Your task to perform on an android device: Check the news Image 0: 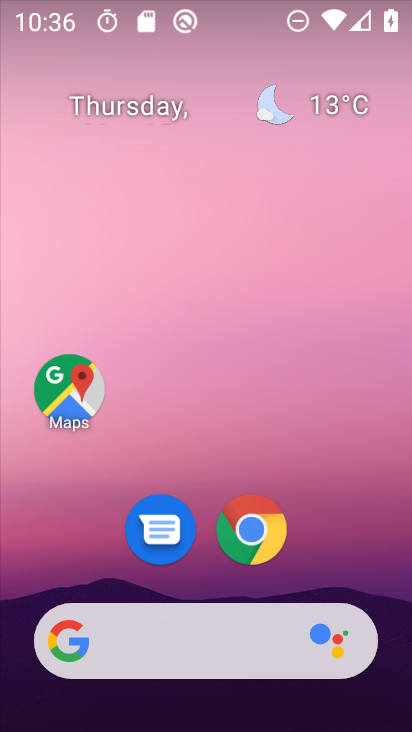
Step 0: click (334, 526)
Your task to perform on an android device: Check the news Image 1: 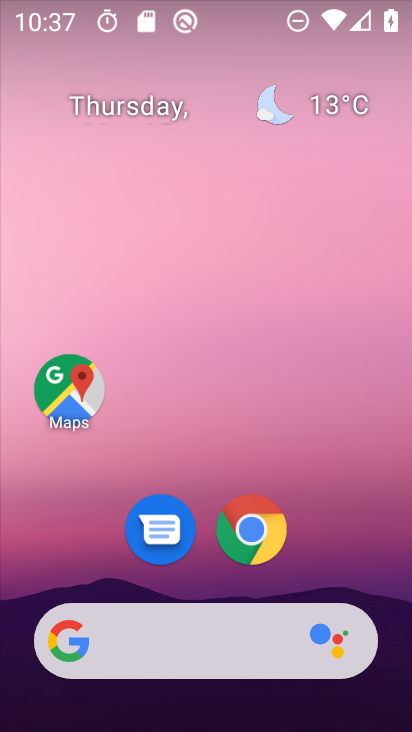
Step 1: click (199, 638)
Your task to perform on an android device: Check the news Image 2: 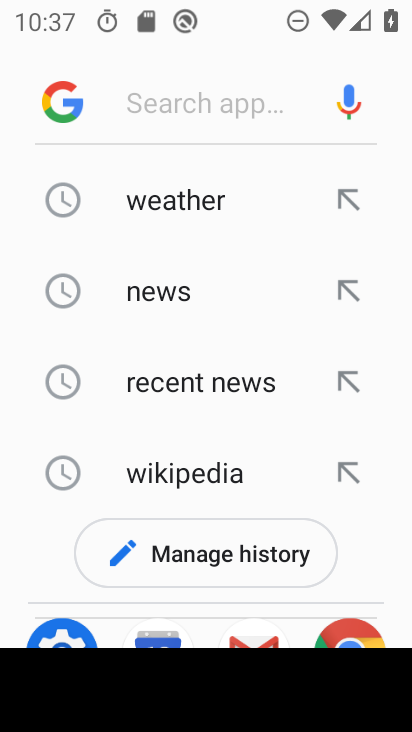
Step 2: click (225, 308)
Your task to perform on an android device: Check the news Image 3: 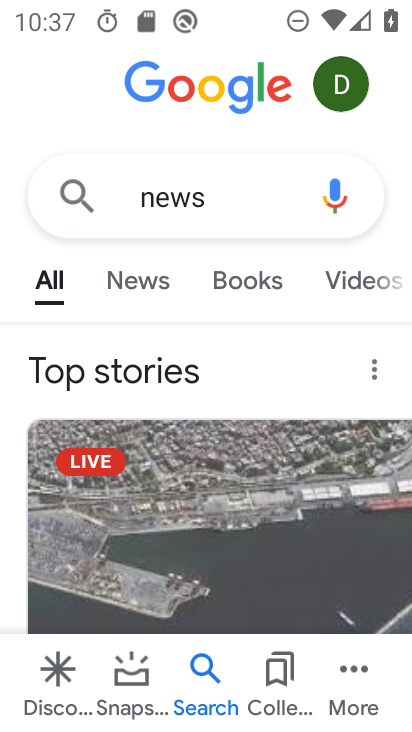
Step 3: click (159, 274)
Your task to perform on an android device: Check the news Image 4: 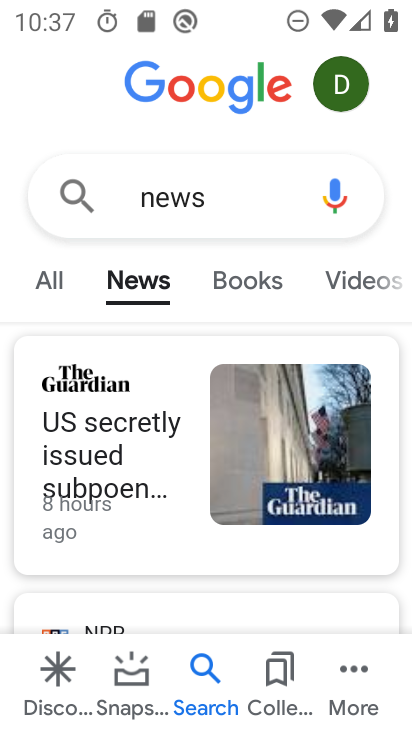
Step 4: task complete